Your task to perform on an android device: star an email in the gmail app Image 0: 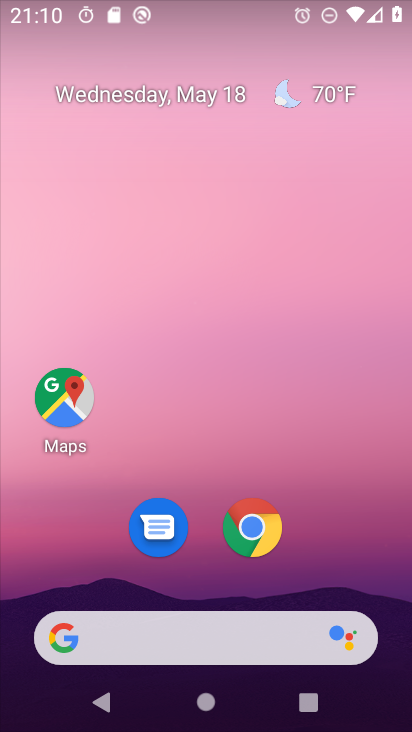
Step 0: drag from (394, 684) to (369, 342)
Your task to perform on an android device: star an email in the gmail app Image 1: 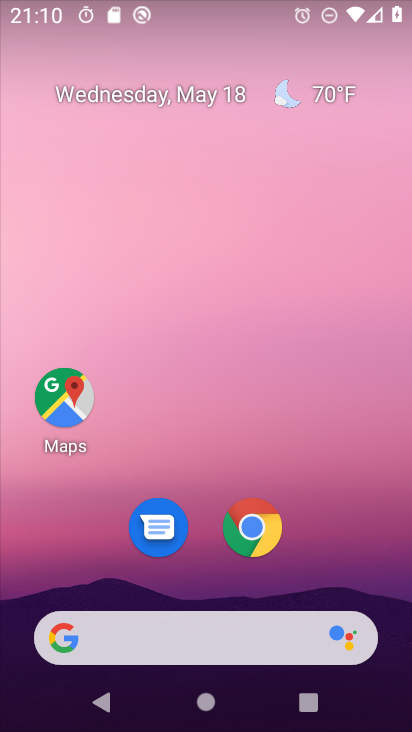
Step 1: drag from (383, 690) to (359, 350)
Your task to perform on an android device: star an email in the gmail app Image 2: 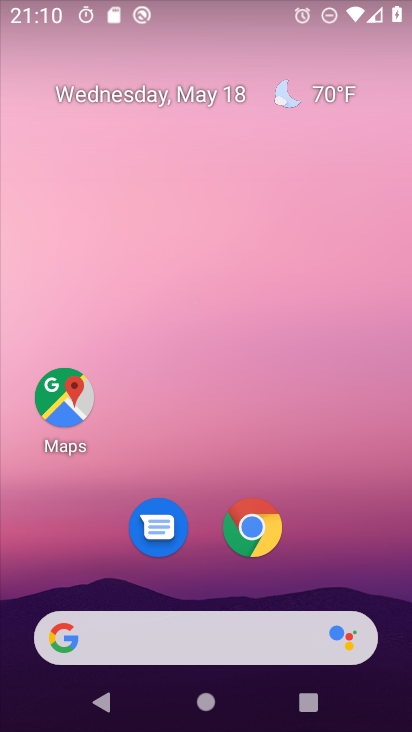
Step 2: drag from (391, 658) to (336, 107)
Your task to perform on an android device: star an email in the gmail app Image 3: 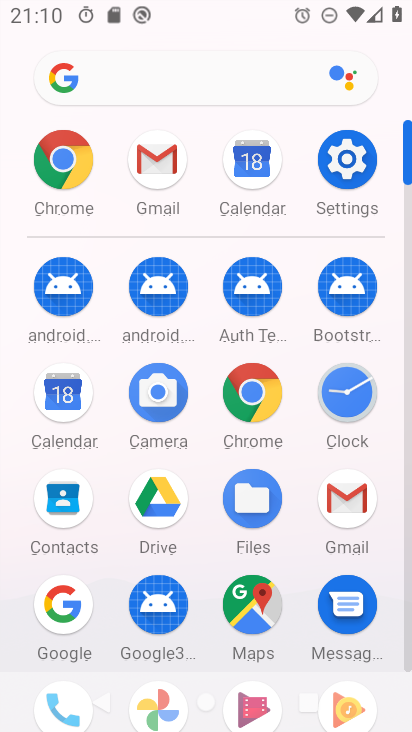
Step 3: click (336, 506)
Your task to perform on an android device: star an email in the gmail app Image 4: 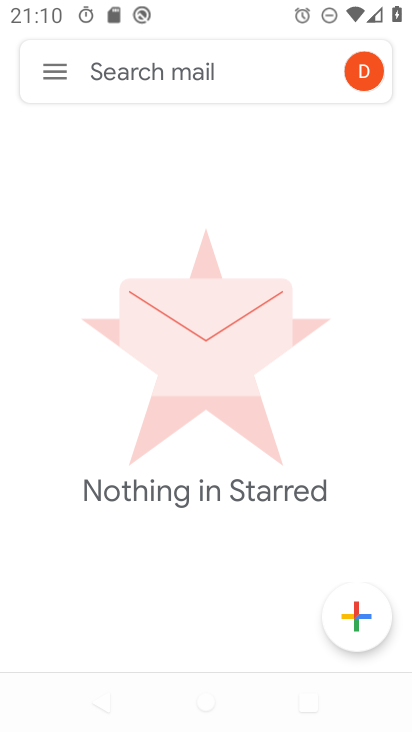
Step 4: click (54, 74)
Your task to perform on an android device: star an email in the gmail app Image 5: 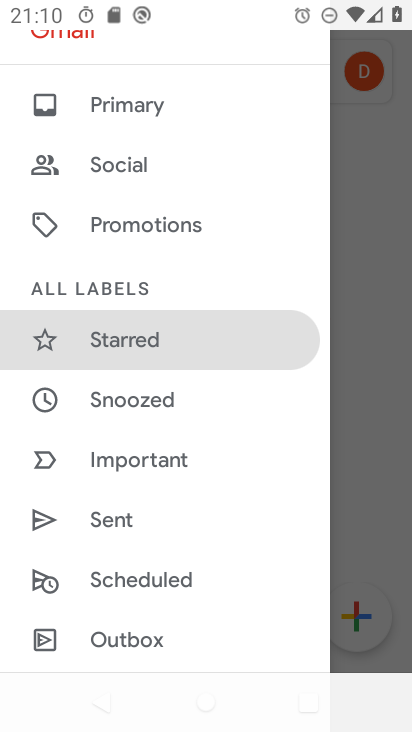
Step 5: click (82, 116)
Your task to perform on an android device: star an email in the gmail app Image 6: 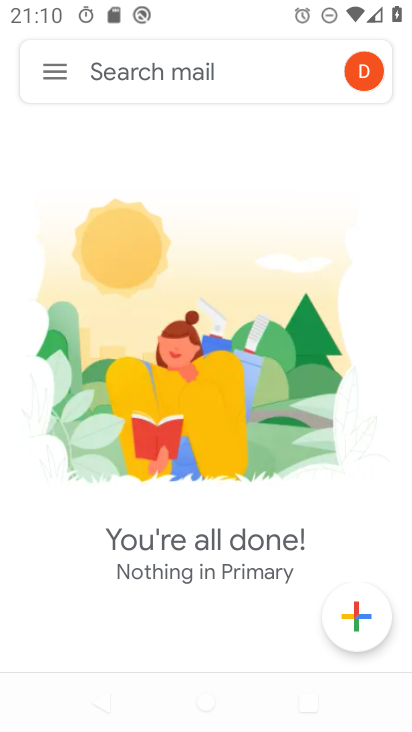
Step 6: task complete